Your task to perform on an android device: Search for sushi restaurants on Maps Image 0: 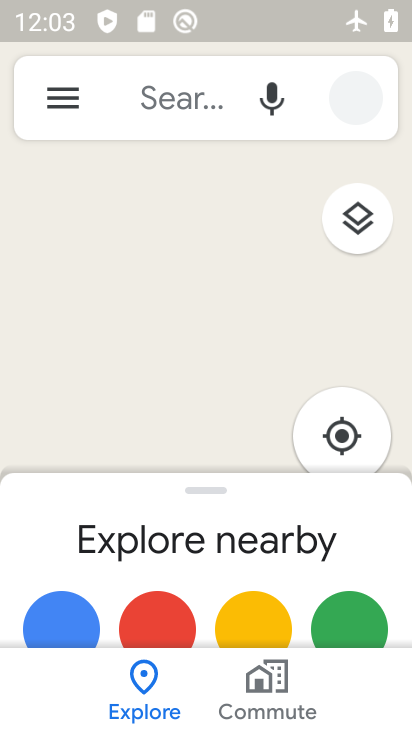
Step 0: press home button
Your task to perform on an android device: Search for sushi restaurants on Maps Image 1: 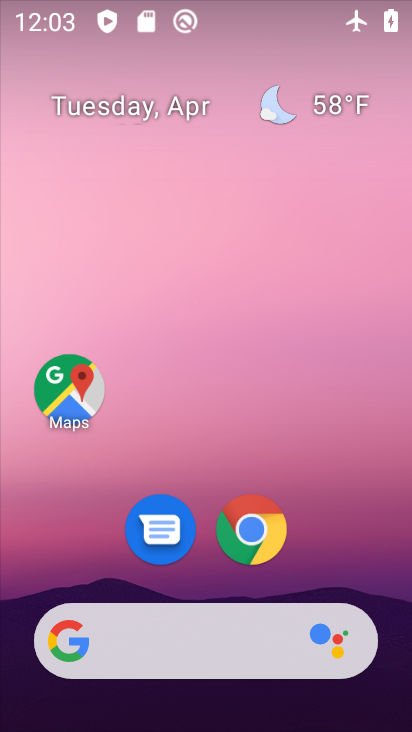
Step 1: click (81, 386)
Your task to perform on an android device: Search for sushi restaurants on Maps Image 2: 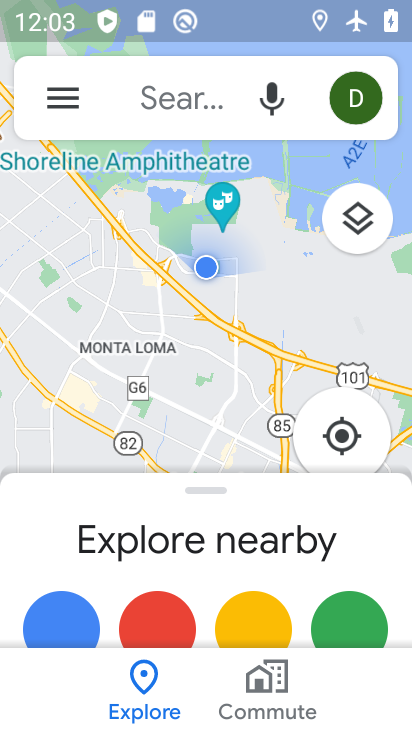
Step 2: click (160, 100)
Your task to perform on an android device: Search for sushi restaurants on Maps Image 3: 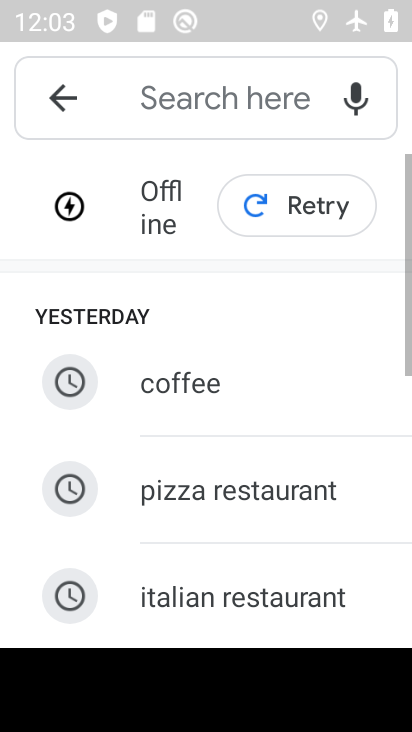
Step 3: drag from (204, 513) to (123, 111)
Your task to perform on an android device: Search for sushi restaurants on Maps Image 4: 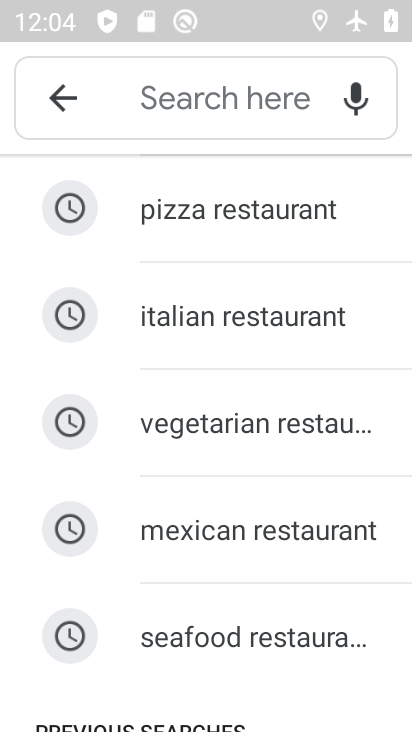
Step 4: drag from (192, 582) to (160, 185)
Your task to perform on an android device: Search for sushi restaurants on Maps Image 5: 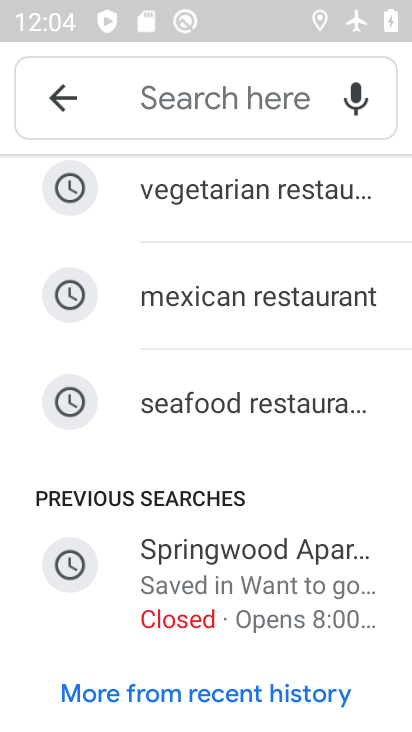
Step 5: click (182, 119)
Your task to perform on an android device: Search for sushi restaurants on Maps Image 6: 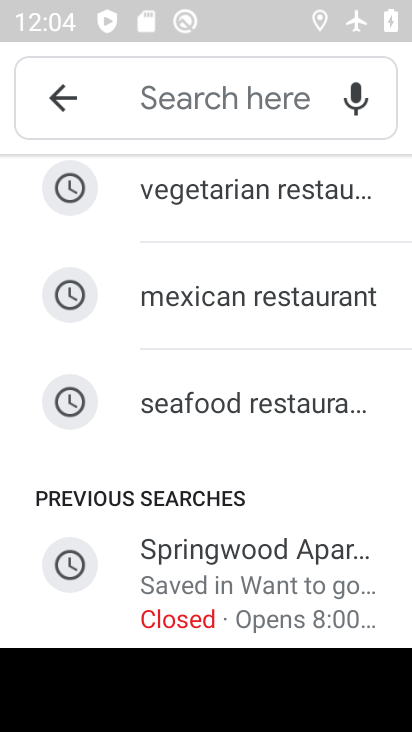
Step 6: type "sushi restaruants"
Your task to perform on an android device: Search for sushi restaurants on Maps Image 7: 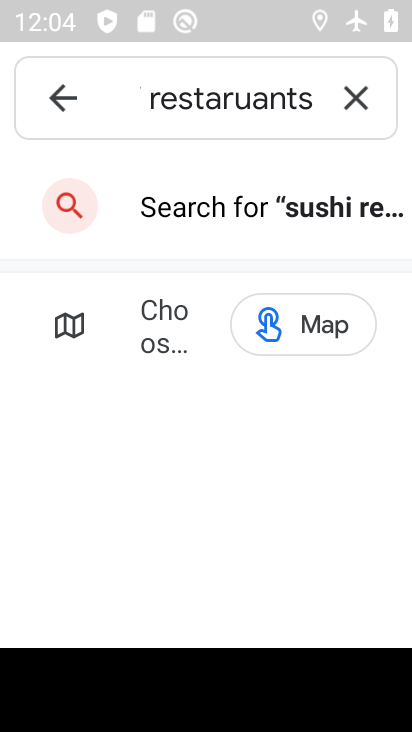
Step 7: click (263, 219)
Your task to perform on an android device: Search for sushi restaurants on Maps Image 8: 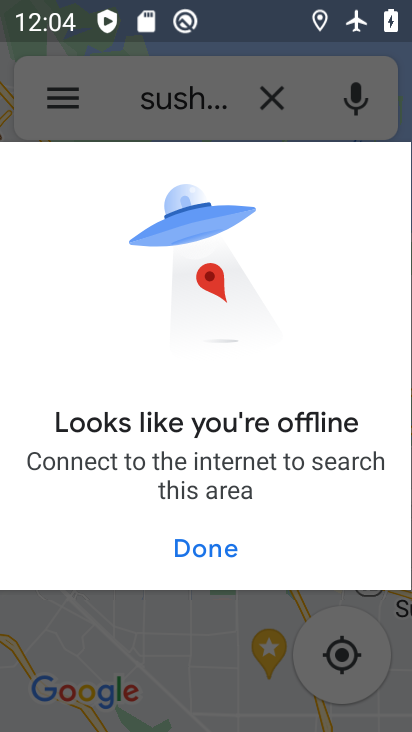
Step 8: task complete